Your task to perform on an android device: open the mobile data screen to see how much data has been used Image 0: 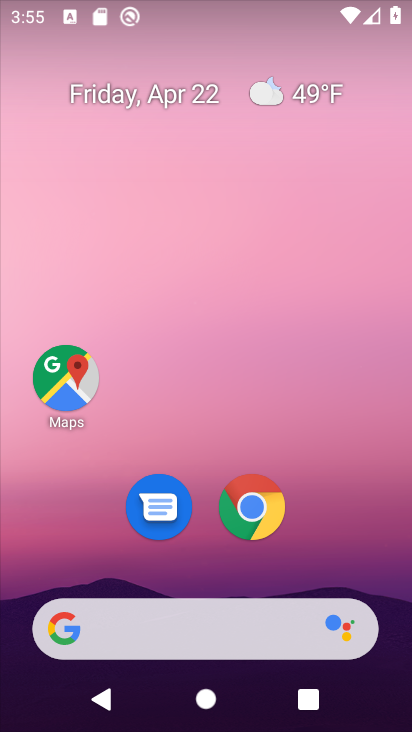
Step 0: drag from (387, 603) to (296, 162)
Your task to perform on an android device: open the mobile data screen to see how much data has been used Image 1: 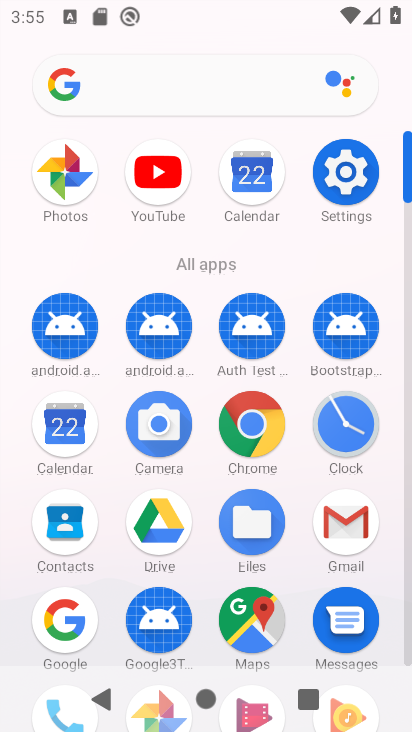
Step 1: click (406, 655)
Your task to perform on an android device: open the mobile data screen to see how much data has been used Image 2: 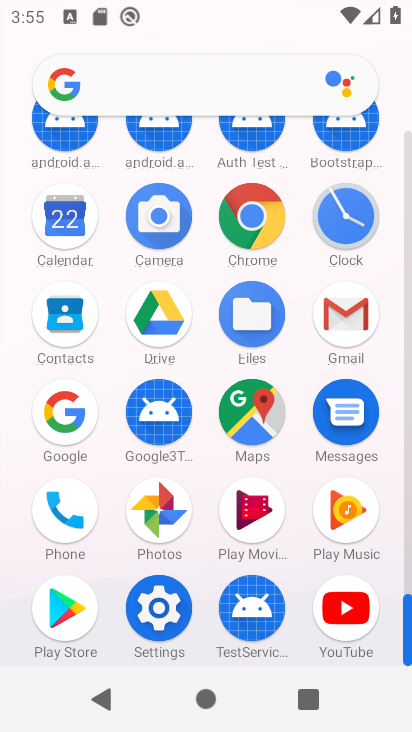
Step 2: click (158, 607)
Your task to perform on an android device: open the mobile data screen to see how much data has been used Image 3: 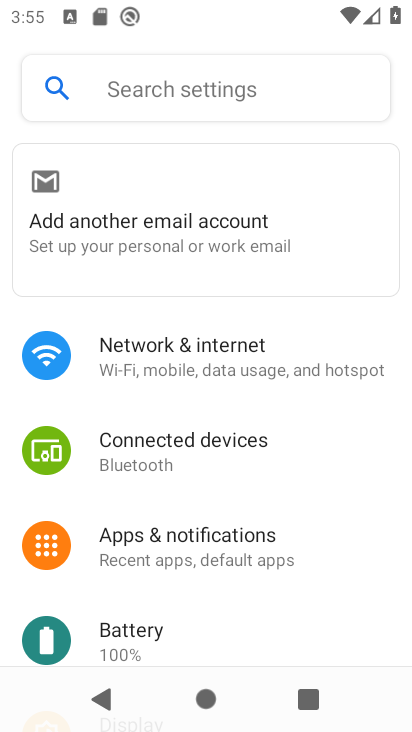
Step 3: click (172, 351)
Your task to perform on an android device: open the mobile data screen to see how much data has been used Image 4: 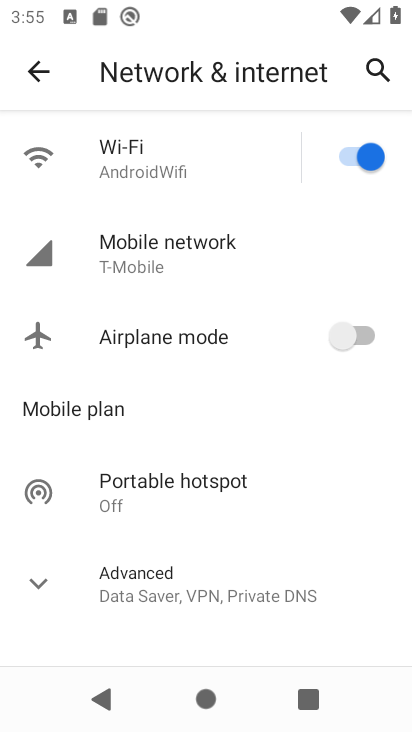
Step 4: click (134, 245)
Your task to perform on an android device: open the mobile data screen to see how much data has been used Image 5: 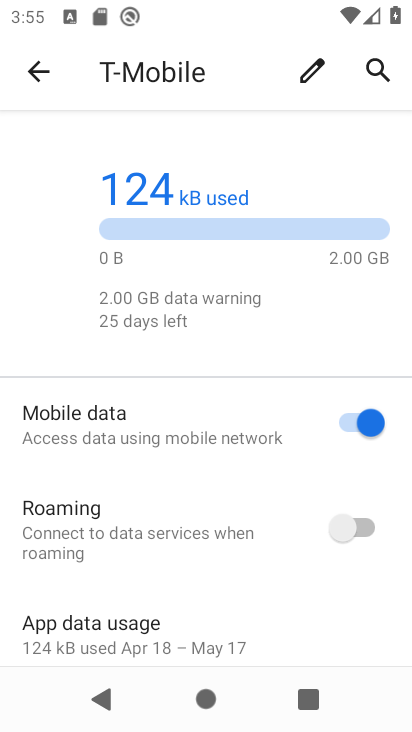
Step 5: task complete